Your task to perform on an android device: toggle sleep mode Image 0: 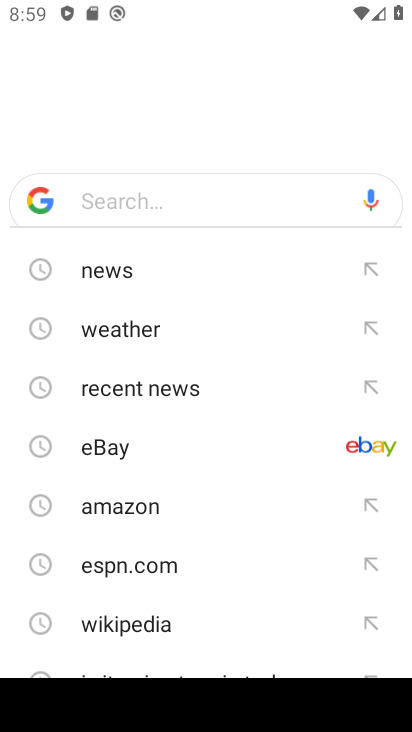
Step 0: press back button
Your task to perform on an android device: toggle sleep mode Image 1: 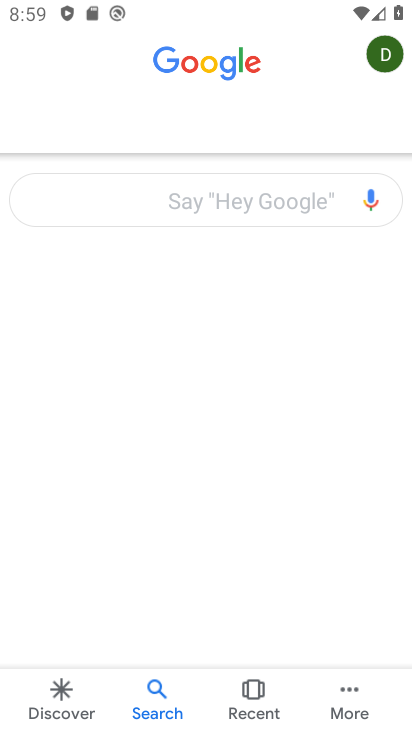
Step 1: press back button
Your task to perform on an android device: toggle sleep mode Image 2: 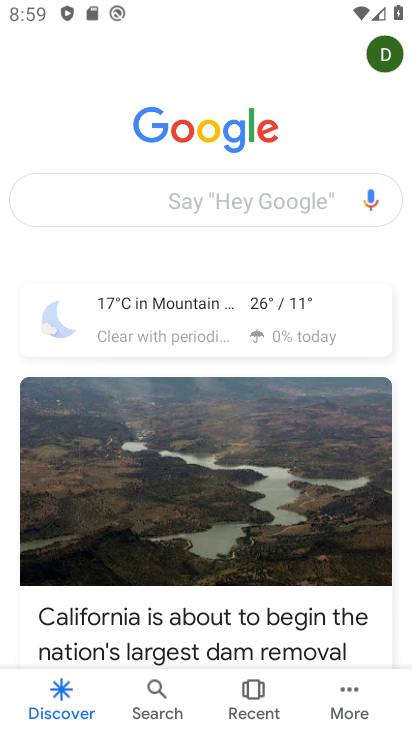
Step 2: press back button
Your task to perform on an android device: toggle sleep mode Image 3: 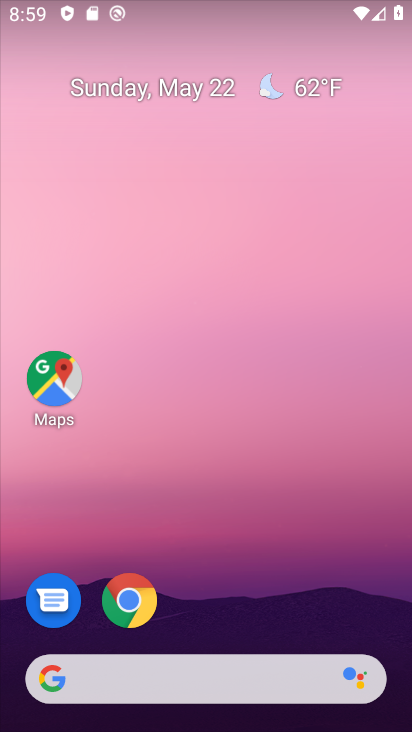
Step 3: drag from (272, 609) to (267, 251)
Your task to perform on an android device: toggle sleep mode Image 4: 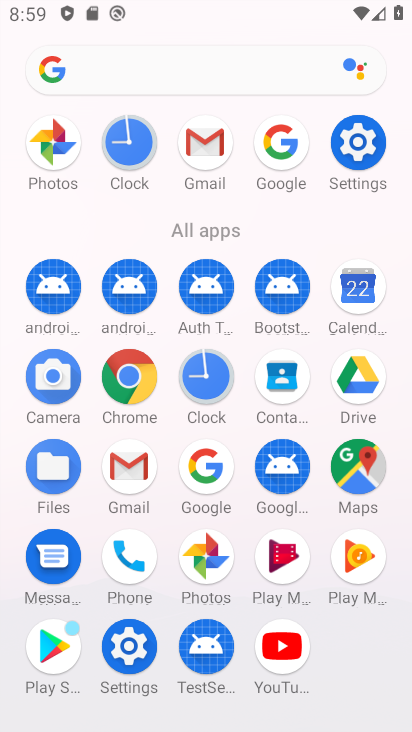
Step 4: click (357, 143)
Your task to perform on an android device: toggle sleep mode Image 5: 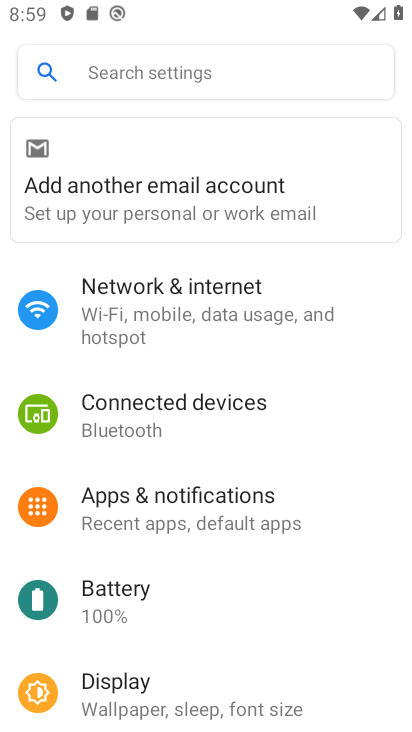
Step 5: drag from (181, 564) to (209, 484)
Your task to perform on an android device: toggle sleep mode Image 6: 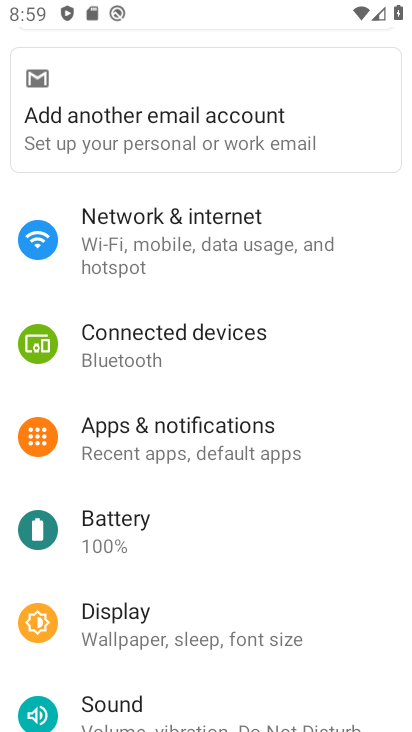
Step 6: drag from (194, 553) to (248, 468)
Your task to perform on an android device: toggle sleep mode Image 7: 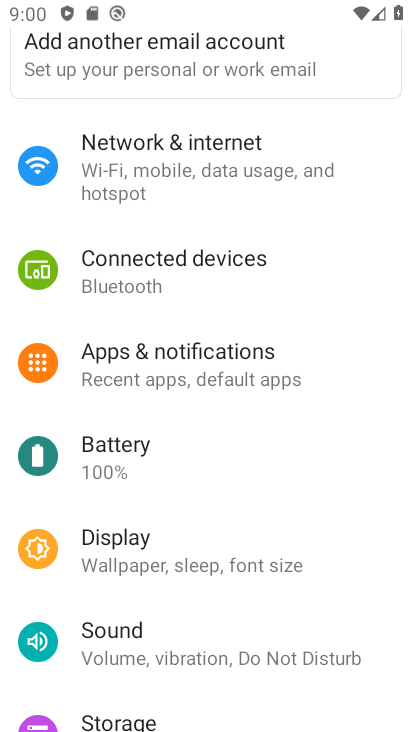
Step 7: drag from (162, 483) to (221, 375)
Your task to perform on an android device: toggle sleep mode Image 8: 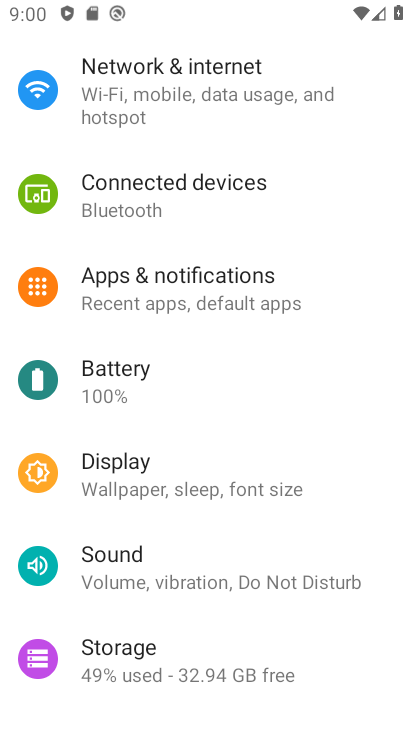
Step 8: click (157, 468)
Your task to perform on an android device: toggle sleep mode Image 9: 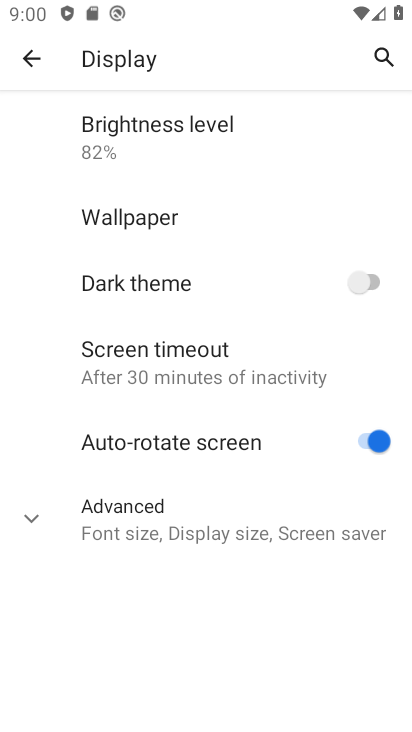
Step 9: click (225, 384)
Your task to perform on an android device: toggle sleep mode Image 10: 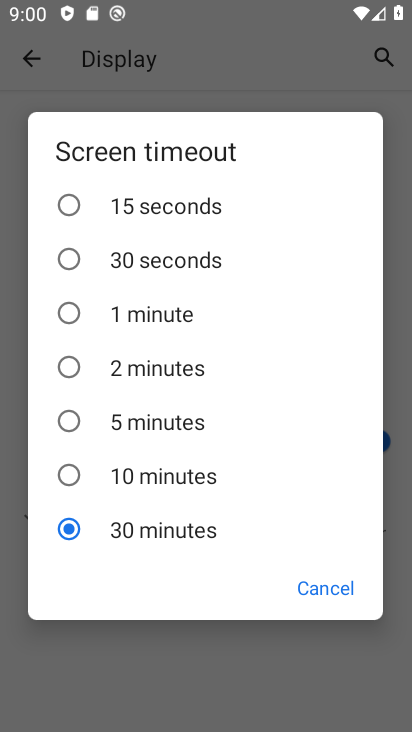
Step 10: drag from (237, 326) to (241, 403)
Your task to perform on an android device: toggle sleep mode Image 11: 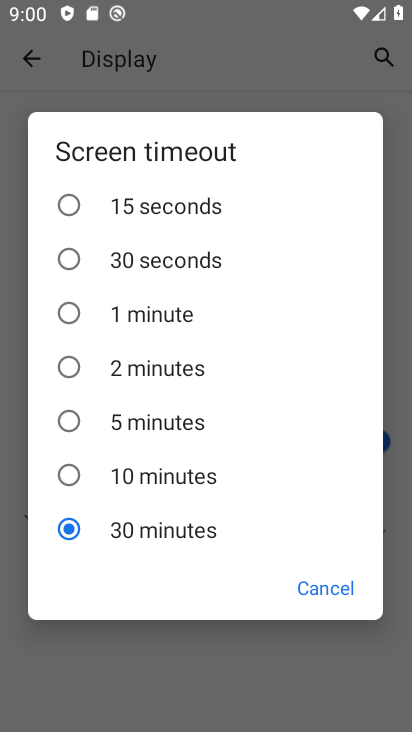
Step 11: drag from (224, 485) to (250, 368)
Your task to perform on an android device: toggle sleep mode Image 12: 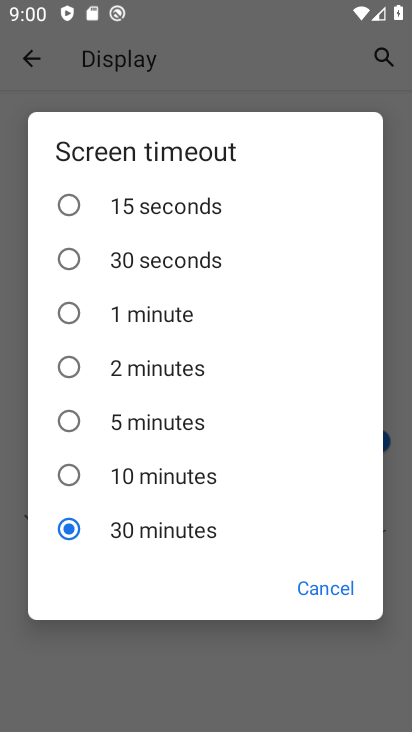
Step 12: click (359, 596)
Your task to perform on an android device: toggle sleep mode Image 13: 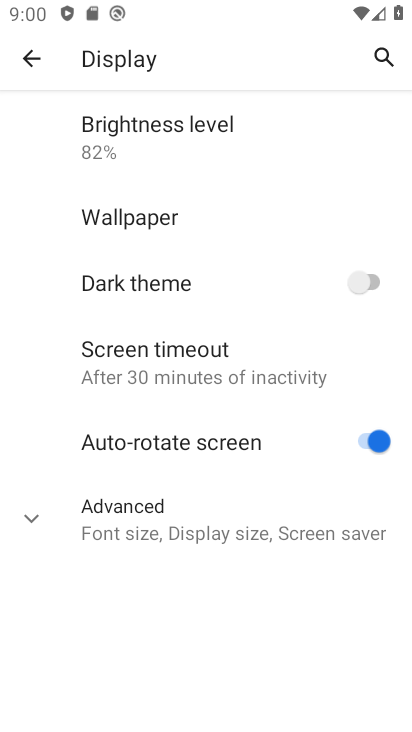
Step 13: click (268, 523)
Your task to perform on an android device: toggle sleep mode Image 14: 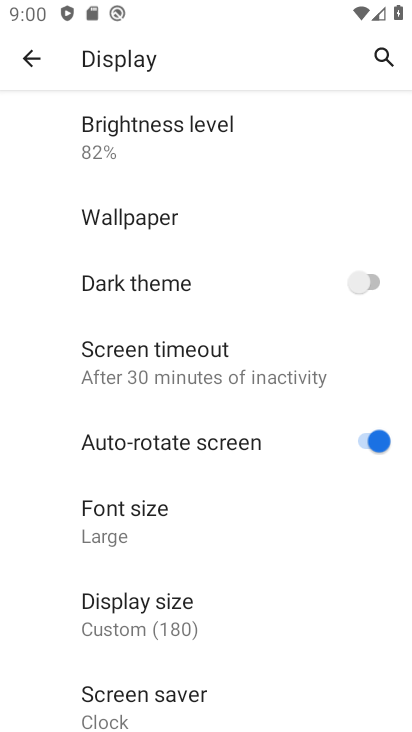
Step 14: drag from (226, 666) to (263, 502)
Your task to perform on an android device: toggle sleep mode Image 15: 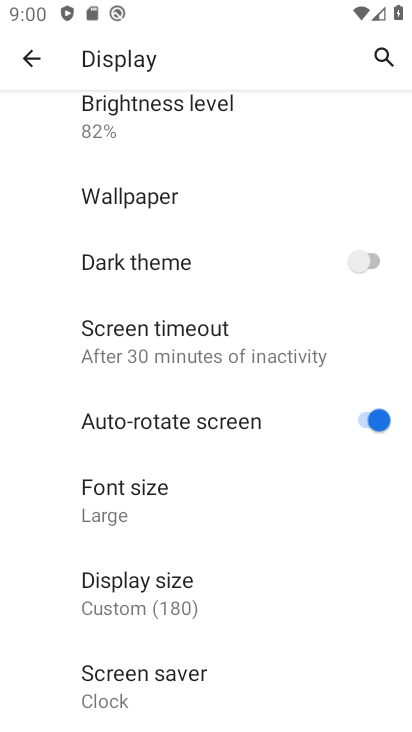
Step 15: click (364, 259)
Your task to perform on an android device: toggle sleep mode Image 16: 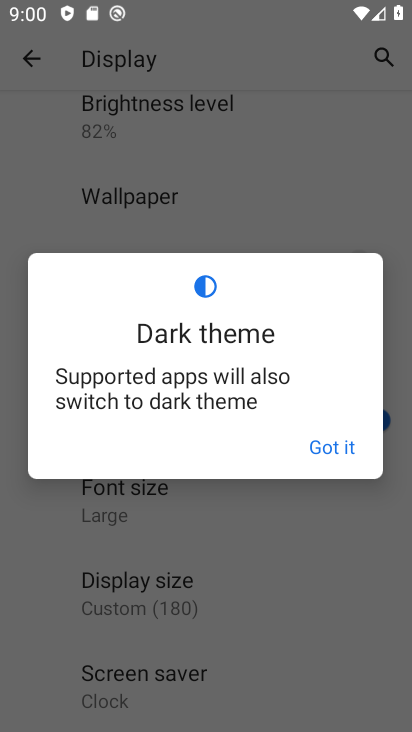
Step 16: click (345, 451)
Your task to perform on an android device: toggle sleep mode Image 17: 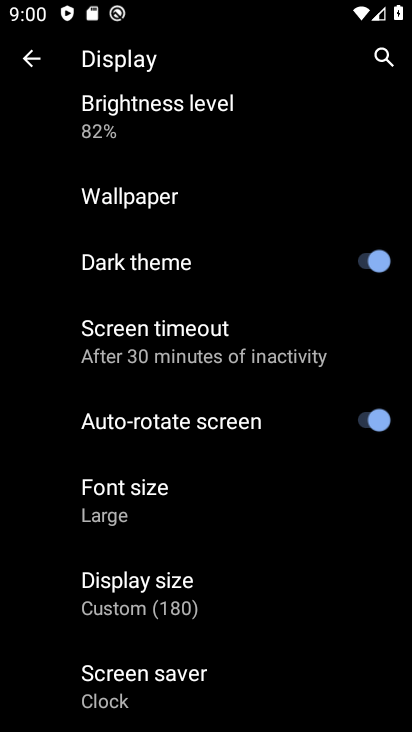
Step 17: task complete